Your task to perform on an android device: Do I have any events today? Image 0: 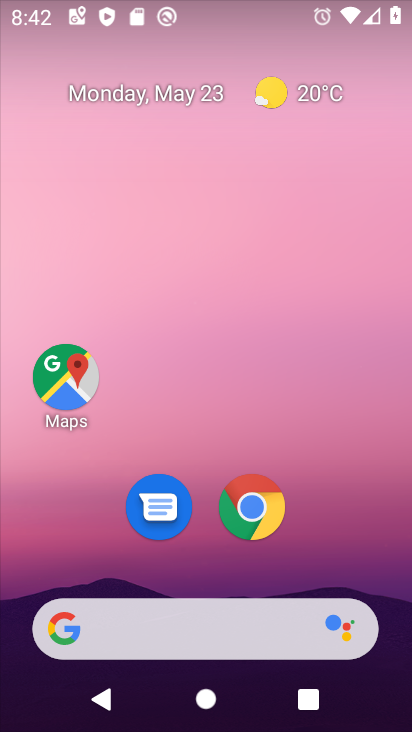
Step 0: drag from (357, 585) to (354, 10)
Your task to perform on an android device: Do I have any events today? Image 1: 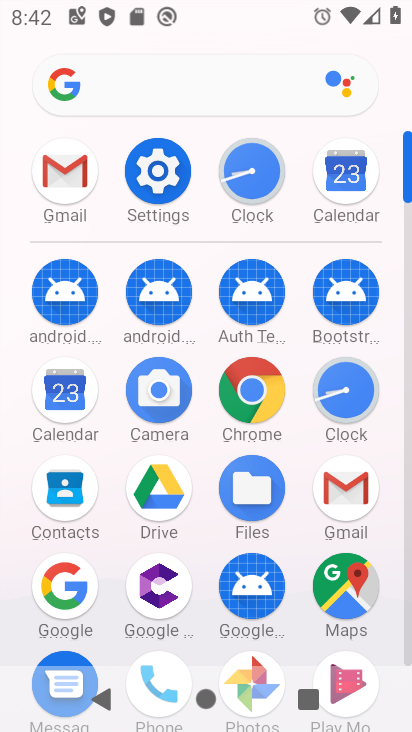
Step 1: click (329, 183)
Your task to perform on an android device: Do I have any events today? Image 2: 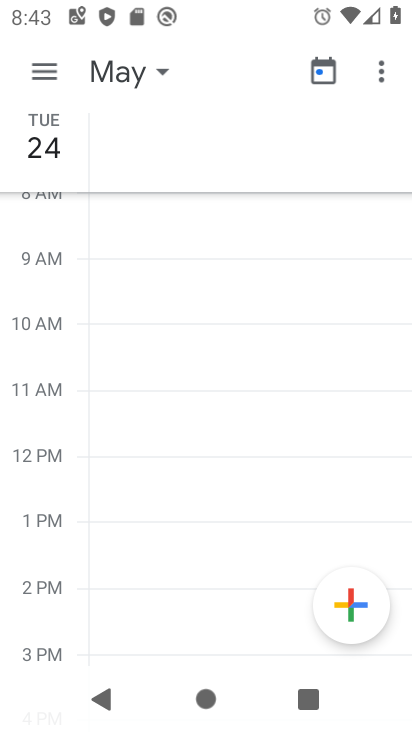
Step 2: click (36, 65)
Your task to perform on an android device: Do I have any events today? Image 3: 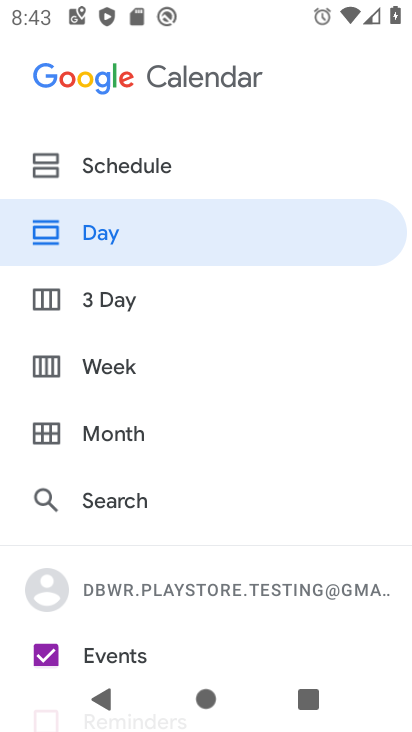
Step 3: click (101, 174)
Your task to perform on an android device: Do I have any events today? Image 4: 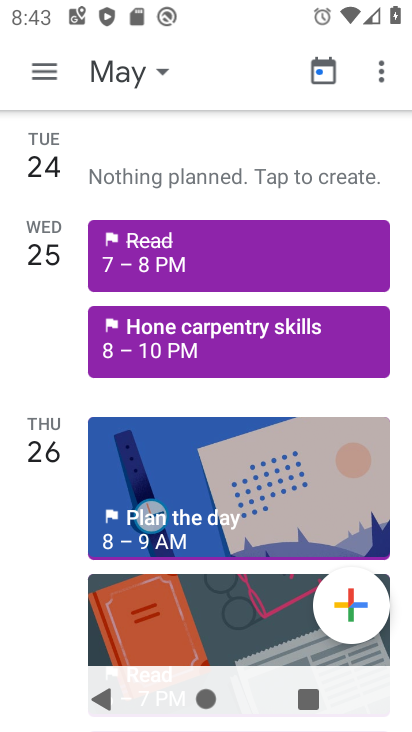
Step 4: drag from (136, 202) to (139, 356)
Your task to perform on an android device: Do I have any events today? Image 5: 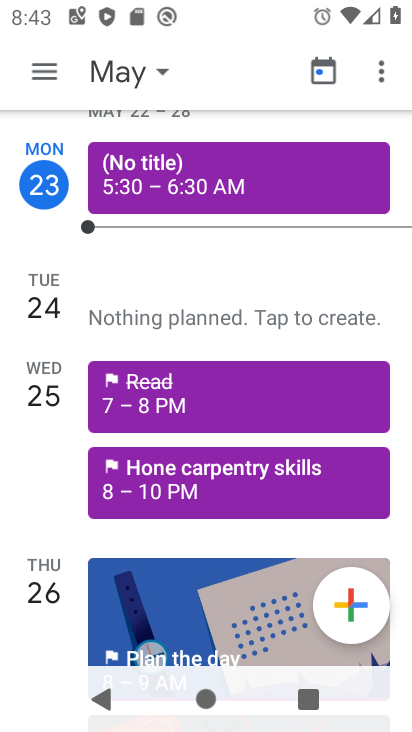
Step 5: click (177, 201)
Your task to perform on an android device: Do I have any events today? Image 6: 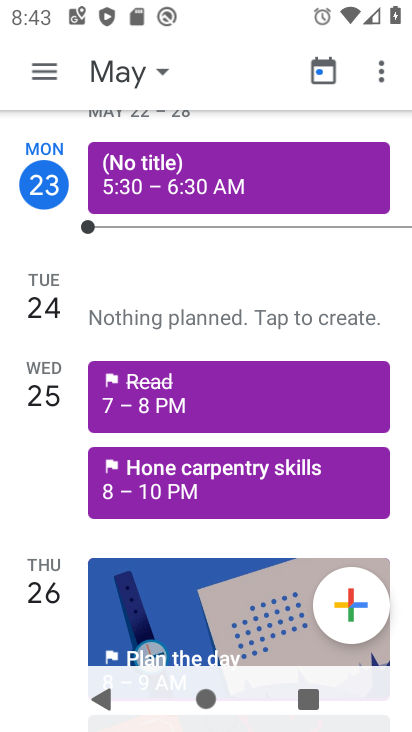
Step 6: click (182, 185)
Your task to perform on an android device: Do I have any events today? Image 7: 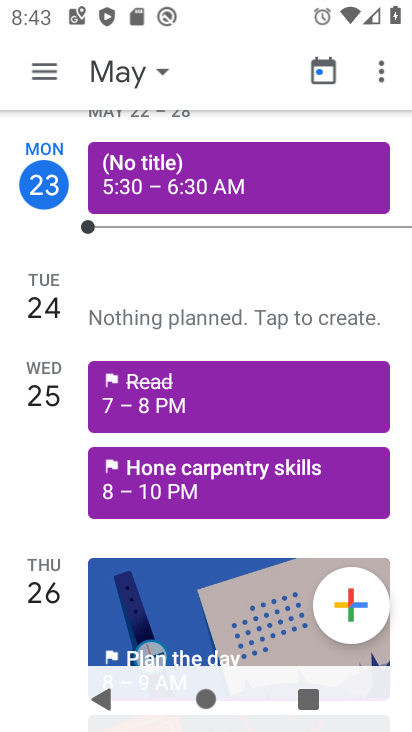
Step 7: click (210, 184)
Your task to perform on an android device: Do I have any events today? Image 8: 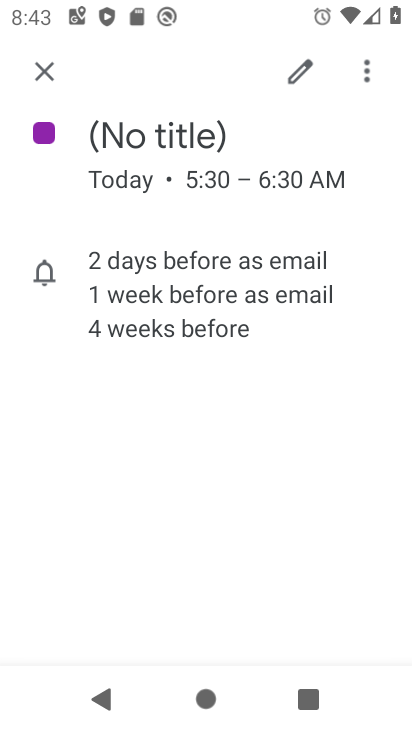
Step 8: task complete